Your task to perform on an android device: open app "Gboard" (install if not already installed) Image 0: 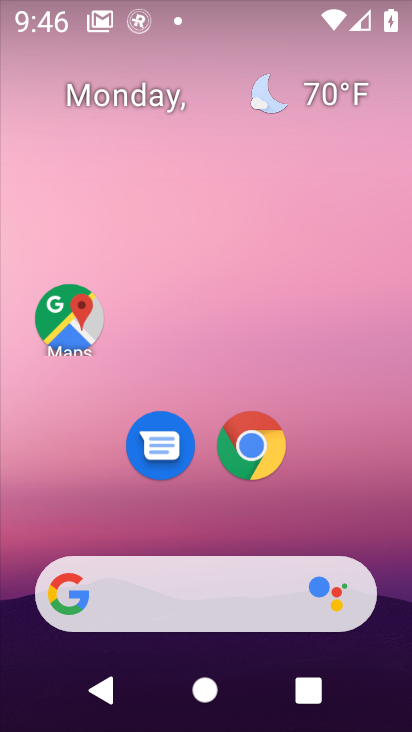
Step 0: drag from (230, 604) to (281, 102)
Your task to perform on an android device: open app "Gboard" (install if not already installed) Image 1: 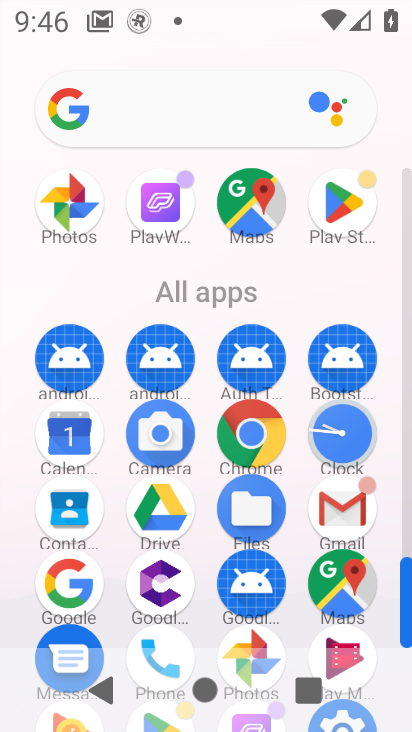
Step 1: click (345, 197)
Your task to perform on an android device: open app "Gboard" (install if not already installed) Image 2: 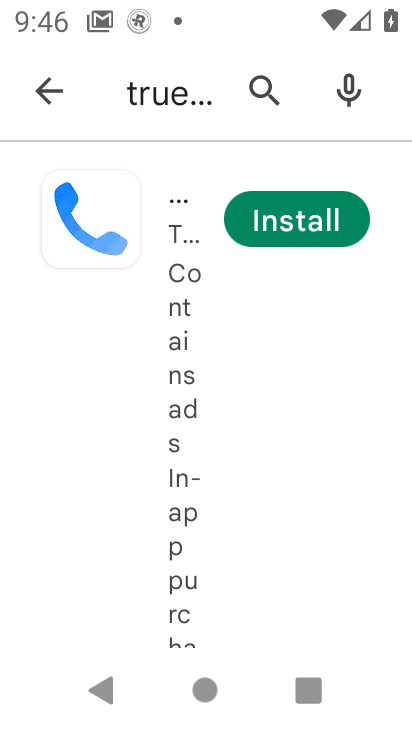
Step 2: click (48, 91)
Your task to perform on an android device: open app "Gboard" (install if not already installed) Image 3: 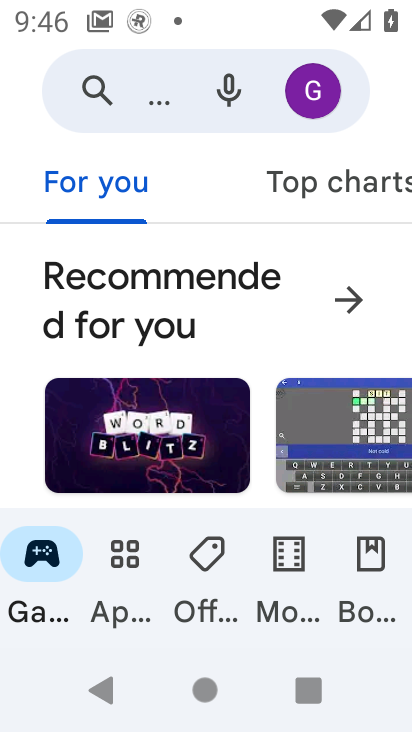
Step 3: click (78, 96)
Your task to perform on an android device: open app "Gboard" (install if not already installed) Image 4: 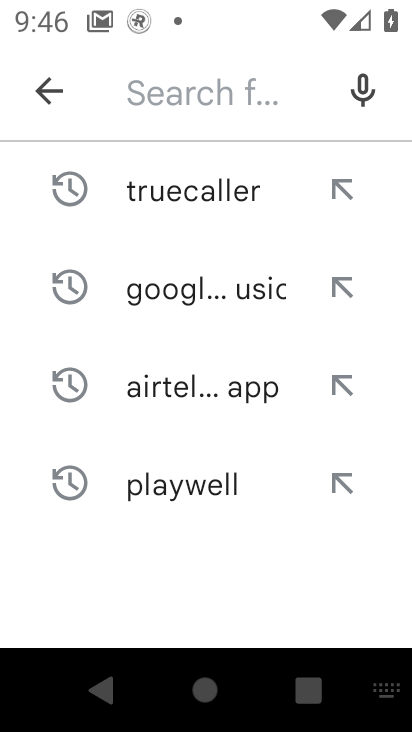
Step 4: type "Gboard"
Your task to perform on an android device: open app "Gboard" (install if not already installed) Image 5: 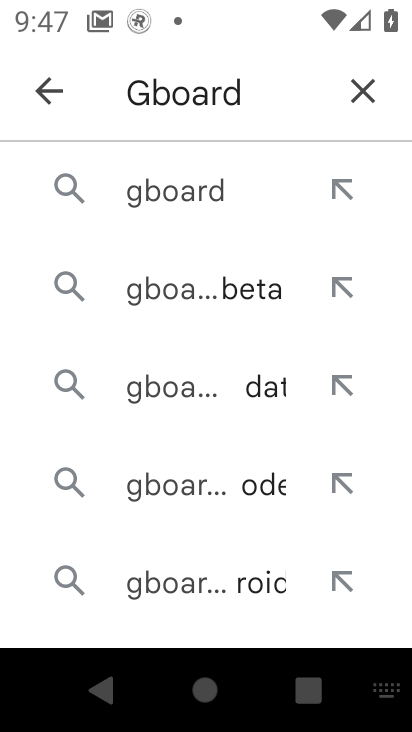
Step 5: click (220, 197)
Your task to perform on an android device: open app "Gboard" (install if not already installed) Image 6: 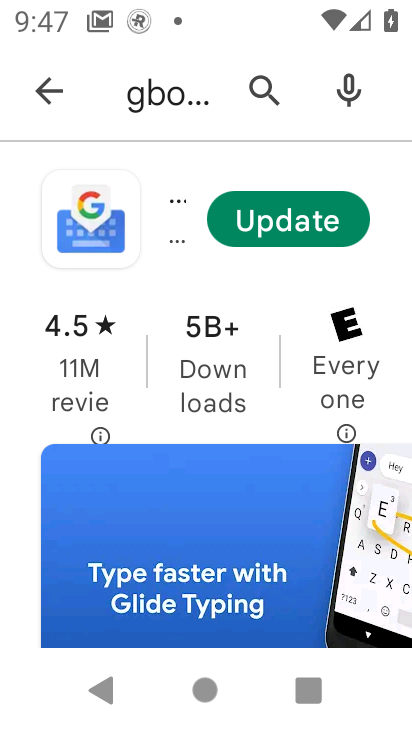
Step 6: click (250, 221)
Your task to perform on an android device: open app "Gboard" (install if not already installed) Image 7: 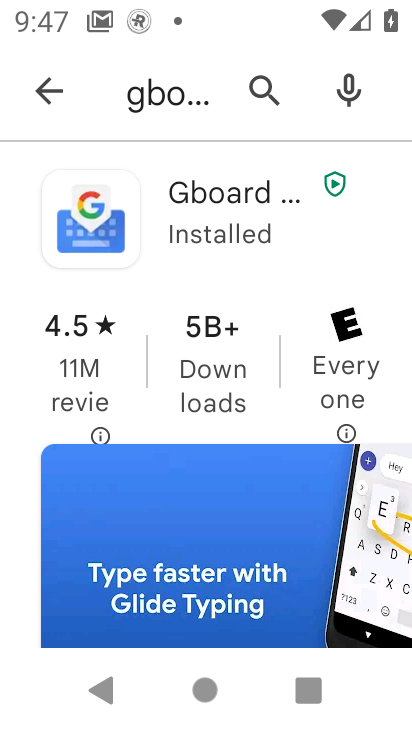
Step 7: task complete